Your task to perform on an android device: turn off priority inbox in the gmail app Image 0: 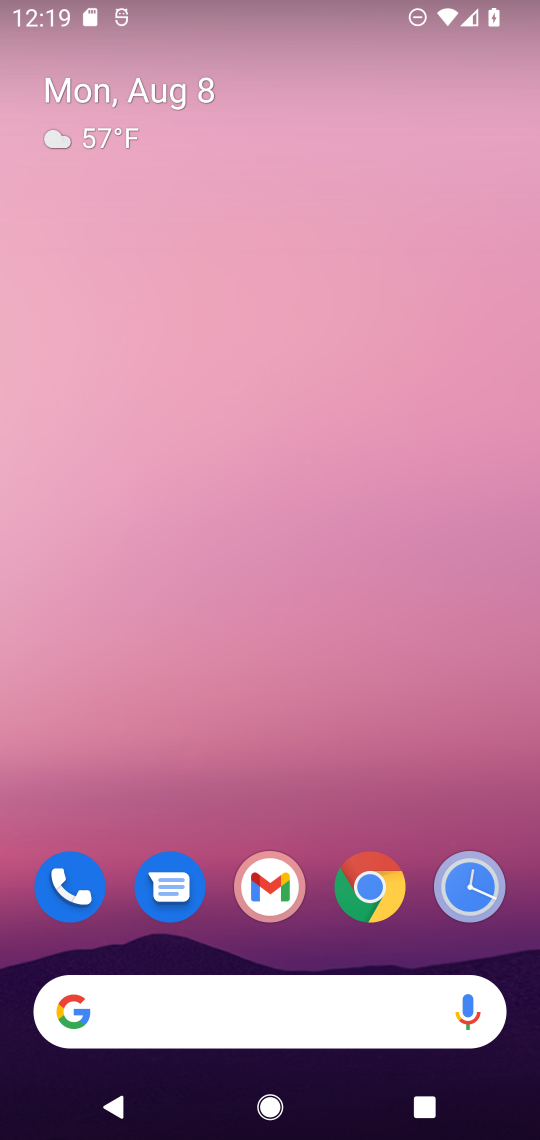
Step 0: click (273, 885)
Your task to perform on an android device: turn off priority inbox in the gmail app Image 1: 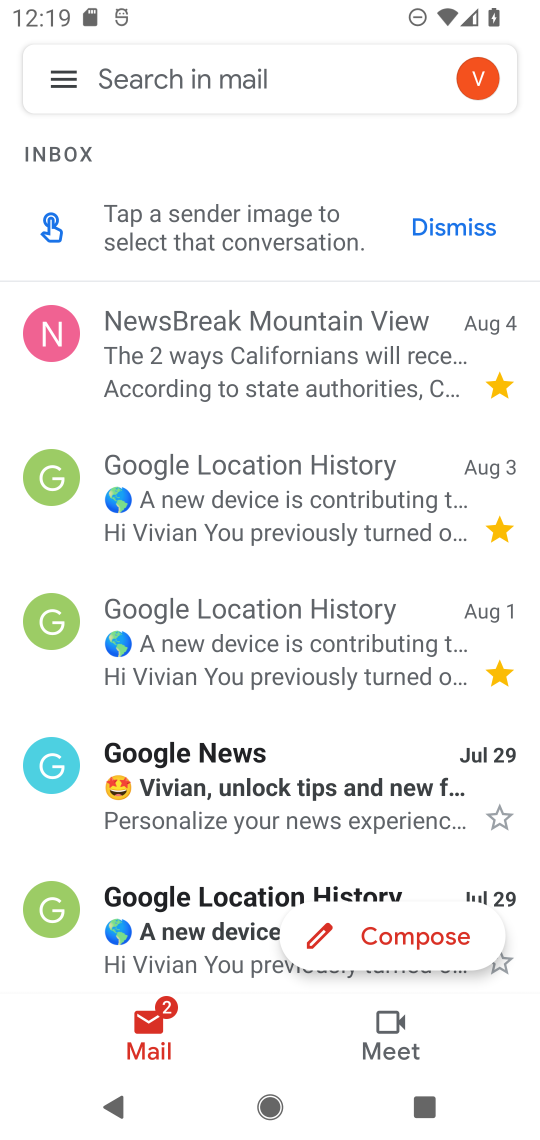
Step 1: click (57, 68)
Your task to perform on an android device: turn off priority inbox in the gmail app Image 2: 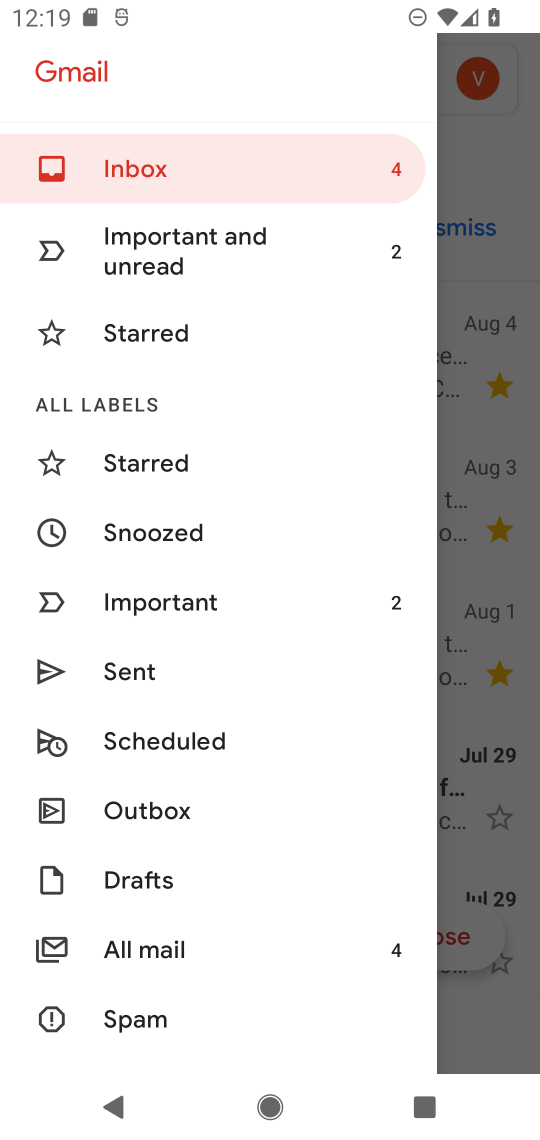
Step 2: drag from (216, 942) to (240, 357)
Your task to perform on an android device: turn off priority inbox in the gmail app Image 3: 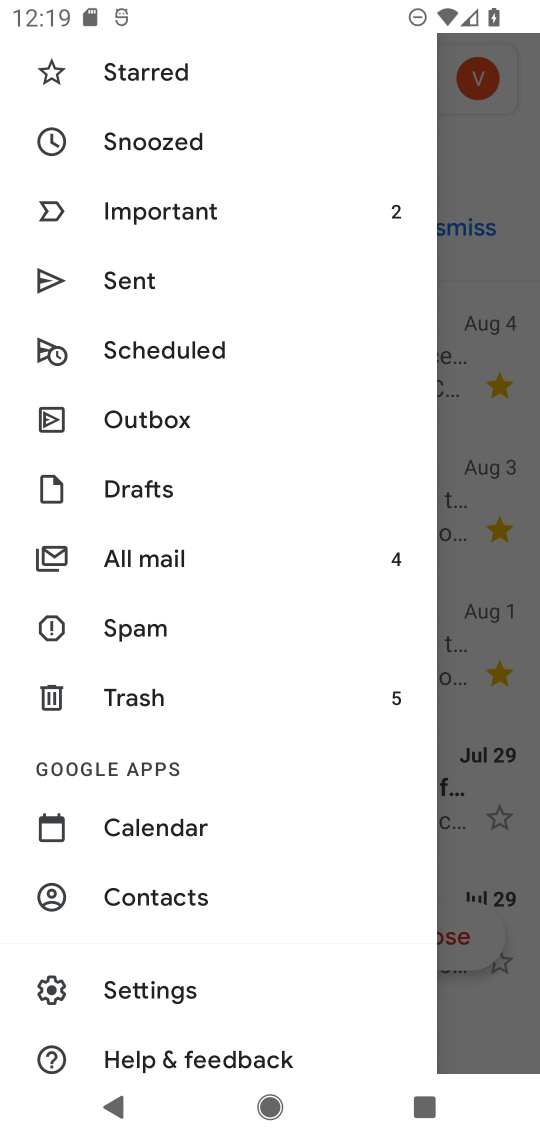
Step 3: click (171, 987)
Your task to perform on an android device: turn off priority inbox in the gmail app Image 4: 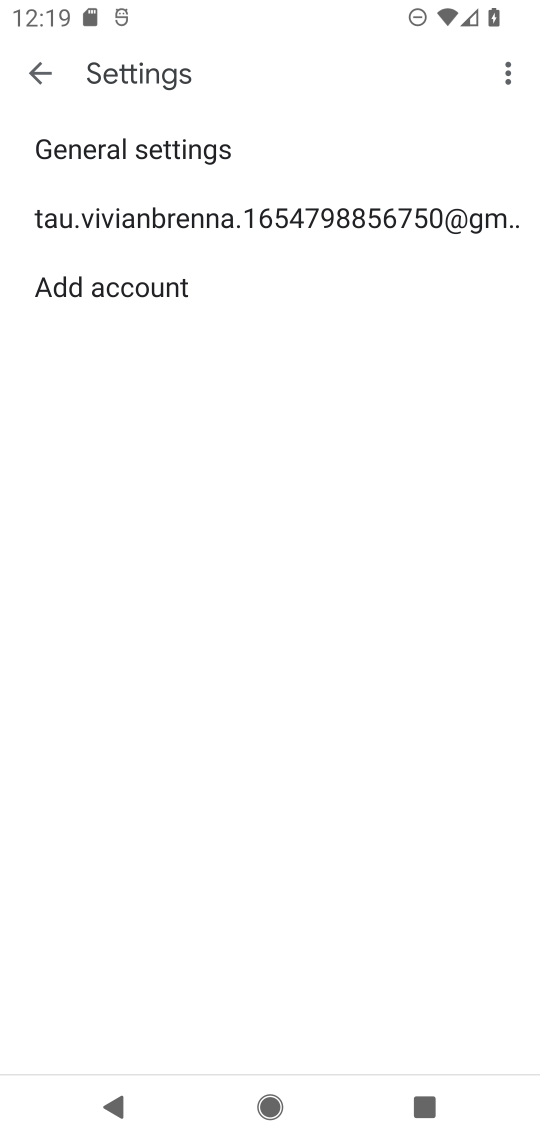
Step 4: click (164, 218)
Your task to perform on an android device: turn off priority inbox in the gmail app Image 5: 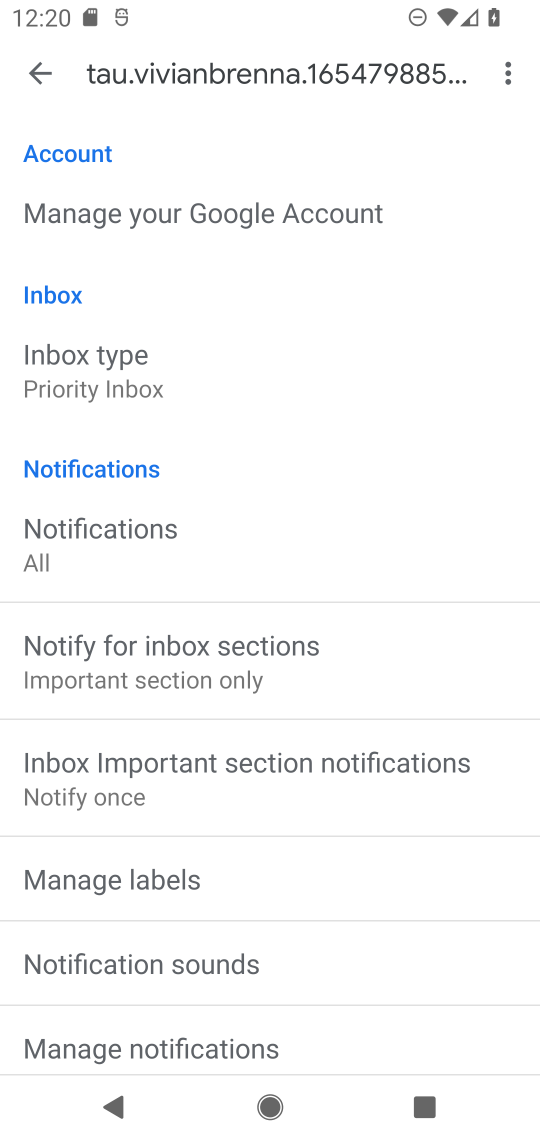
Step 5: click (81, 362)
Your task to perform on an android device: turn off priority inbox in the gmail app Image 6: 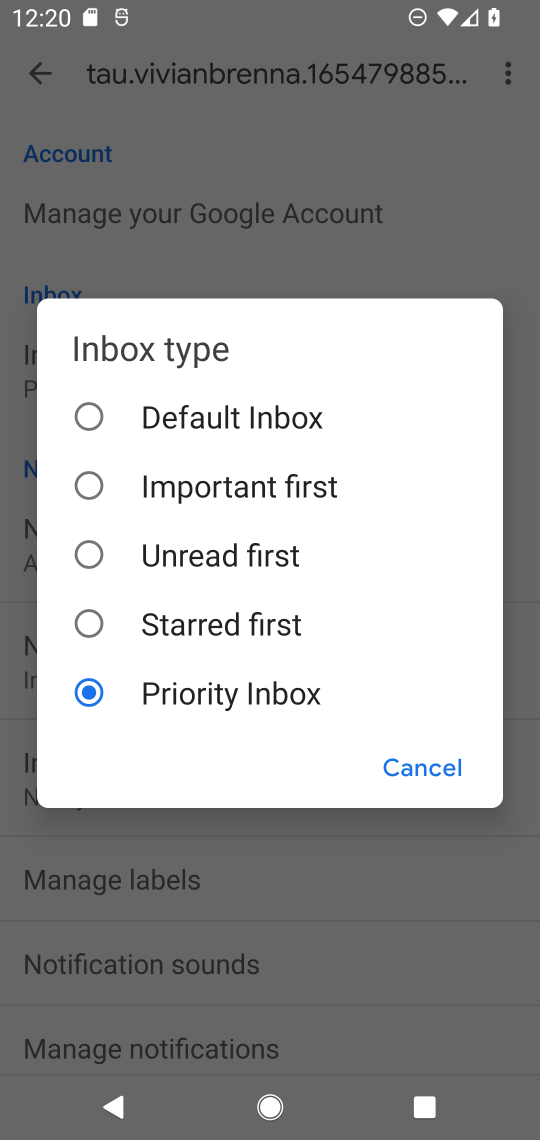
Step 6: click (89, 410)
Your task to perform on an android device: turn off priority inbox in the gmail app Image 7: 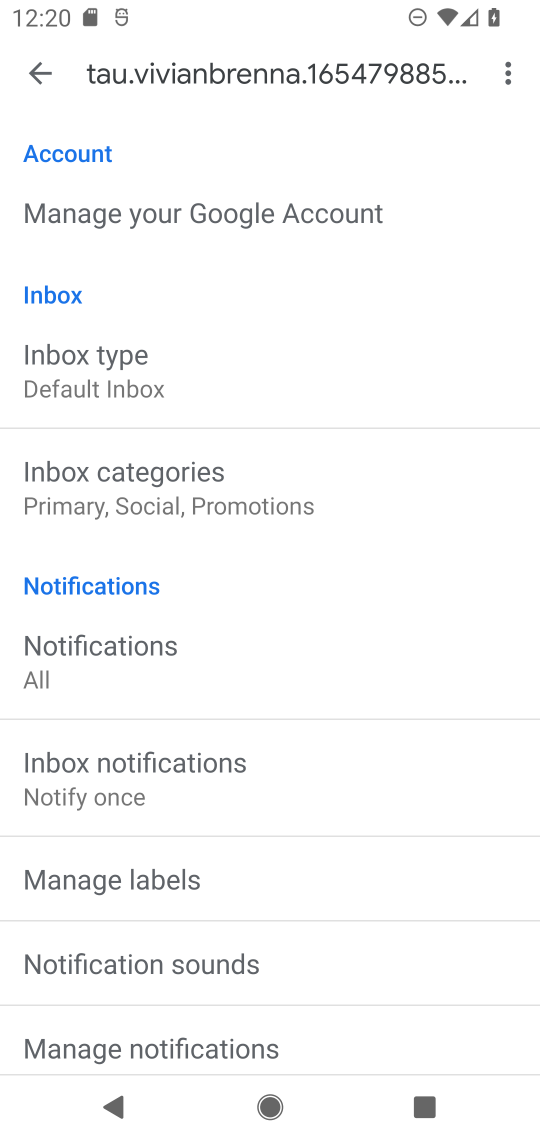
Step 7: task complete